Your task to perform on an android device: When is my next appointment? Image 0: 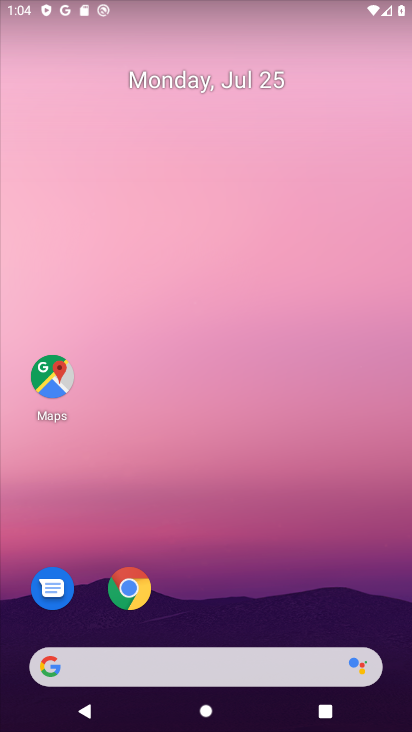
Step 0: click (196, 634)
Your task to perform on an android device: When is my next appointment? Image 1: 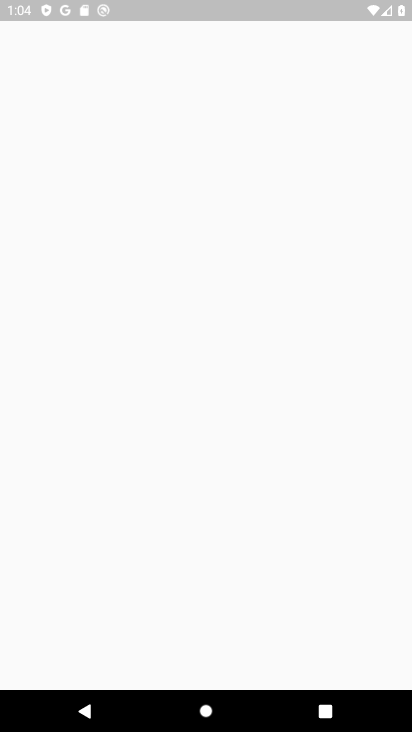
Step 1: press home button
Your task to perform on an android device: When is my next appointment? Image 2: 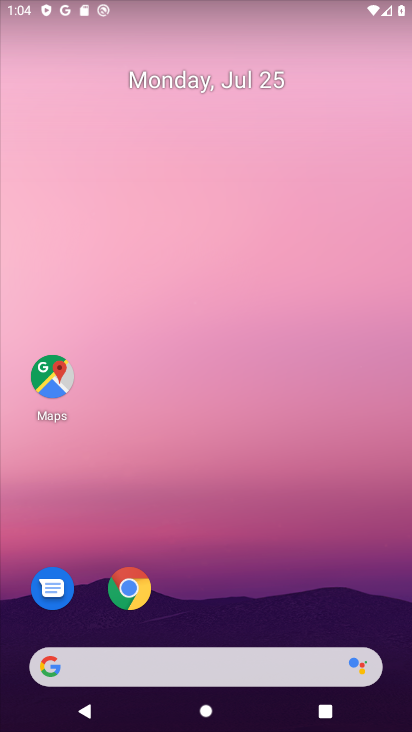
Step 2: drag from (174, 622) to (174, 70)
Your task to perform on an android device: When is my next appointment? Image 3: 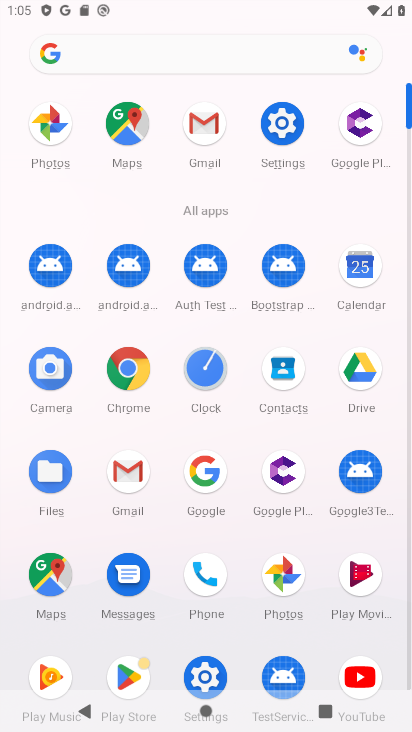
Step 3: click (361, 279)
Your task to perform on an android device: When is my next appointment? Image 4: 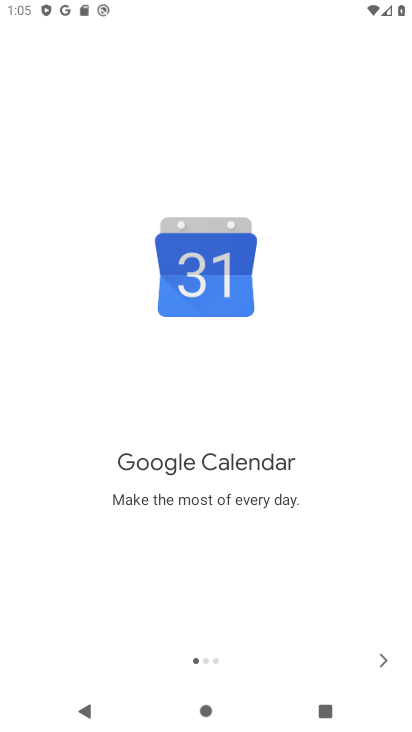
Step 4: click (383, 662)
Your task to perform on an android device: When is my next appointment? Image 5: 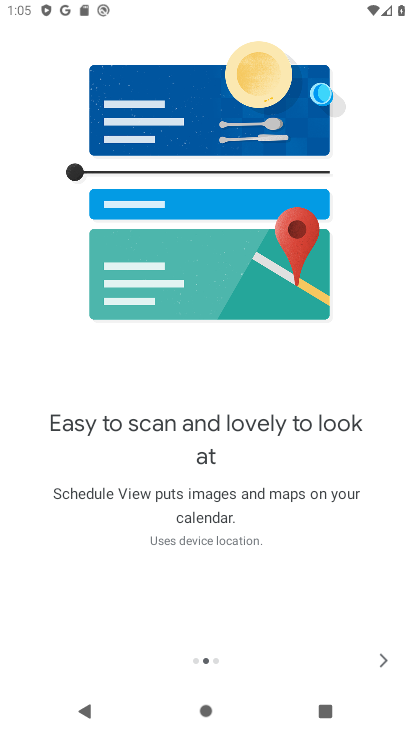
Step 5: click (383, 662)
Your task to perform on an android device: When is my next appointment? Image 6: 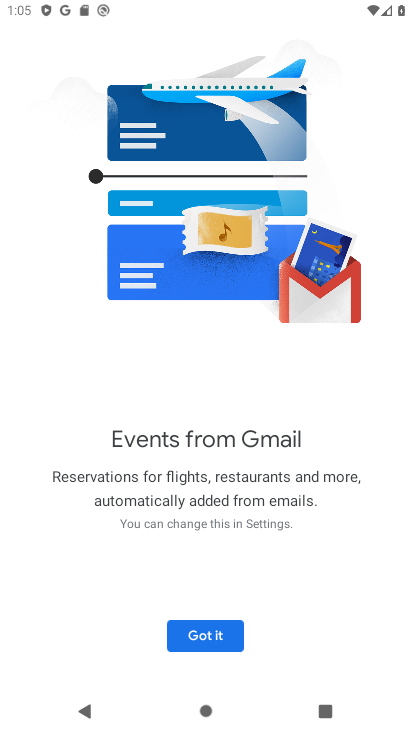
Step 6: click (191, 642)
Your task to perform on an android device: When is my next appointment? Image 7: 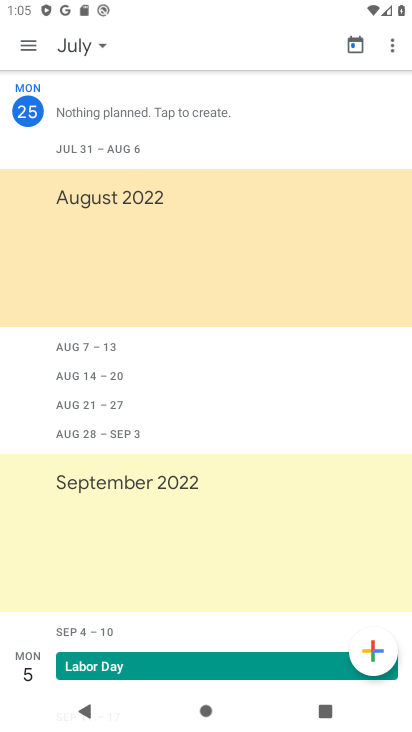
Step 7: drag from (114, 496) to (120, 356)
Your task to perform on an android device: When is my next appointment? Image 8: 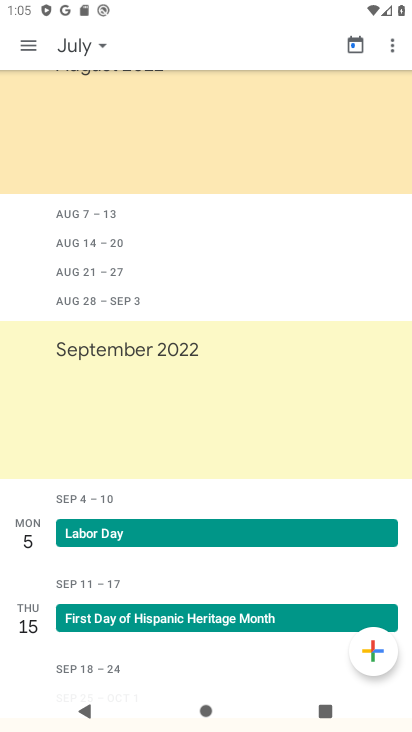
Step 8: drag from (117, 426) to (119, 96)
Your task to perform on an android device: When is my next appointment? Image 9: 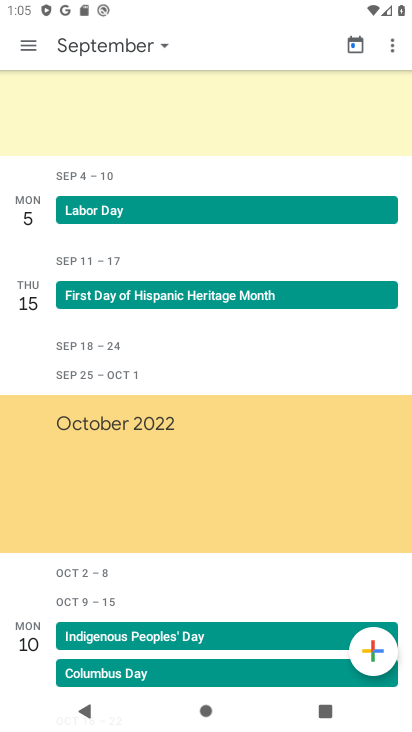
Step 9: drag from (170, 369) to (170, 146)
Your task to perform on an android device: When is my next appointment? Image 10: 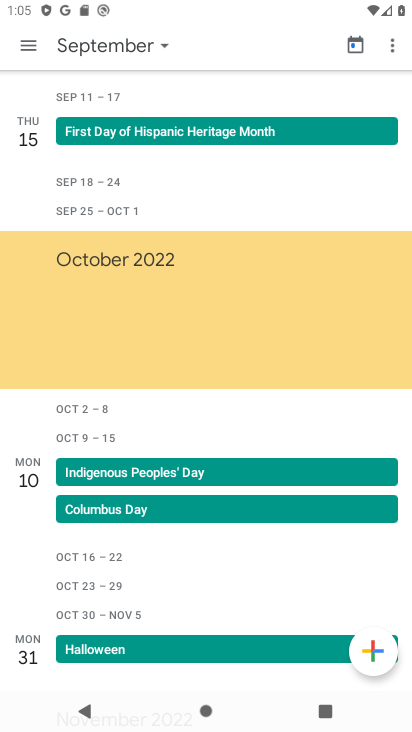
Step 10: drag from (170, 521) to (177, 323)
Your task to perform on an android device: When is my next appointment? Image 11: 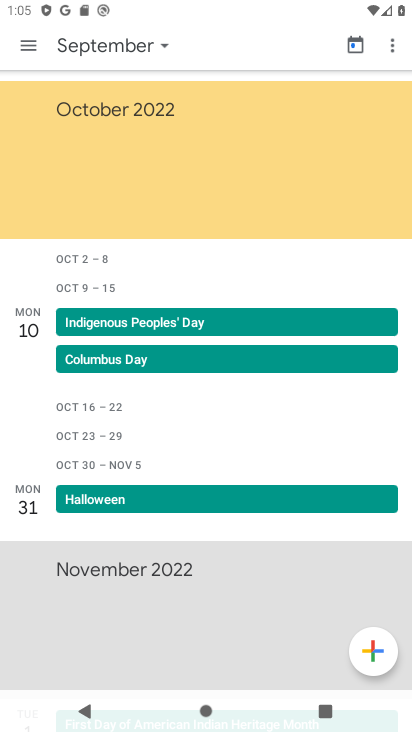
Step 11: drag from (179, 590) to (207, 377)
Your task to perform on an android device: When is my next appointment? Image 12: 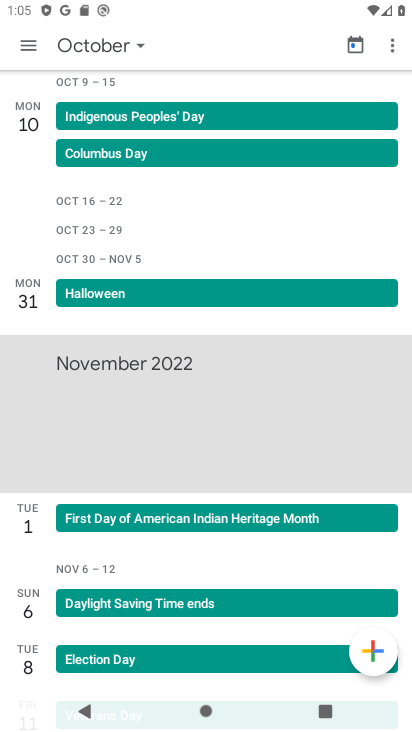
Step 12: click (263, 553)
Your task to perform on an android device: When is my next appointment? Image 13: 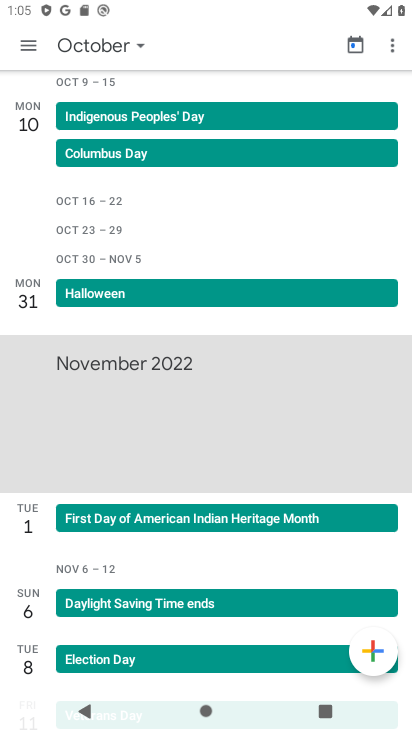
Step 13: task complete